Your task to perform on an android device: Open Google Maps Image 0: 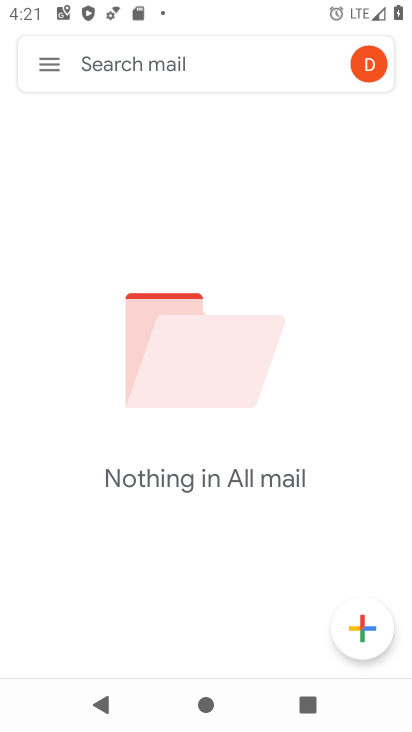
Step 0: drag from (242, 594) to (292, 160)
Your task to perform on an android device: Open Google Maps Image 1: 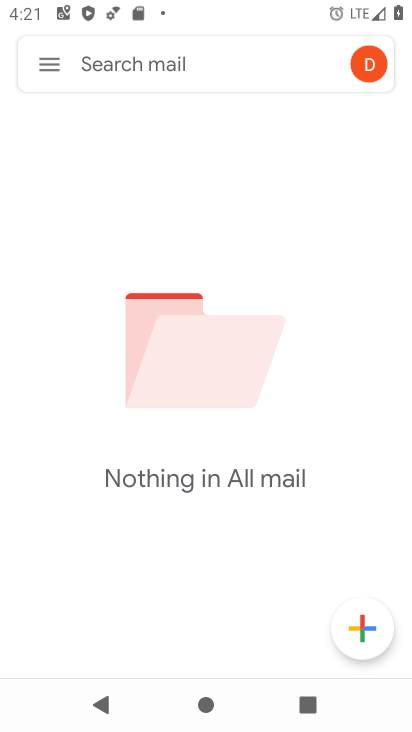
Step 1: press back button
Your task to perform on an android device: Open Google Maps Image 2: 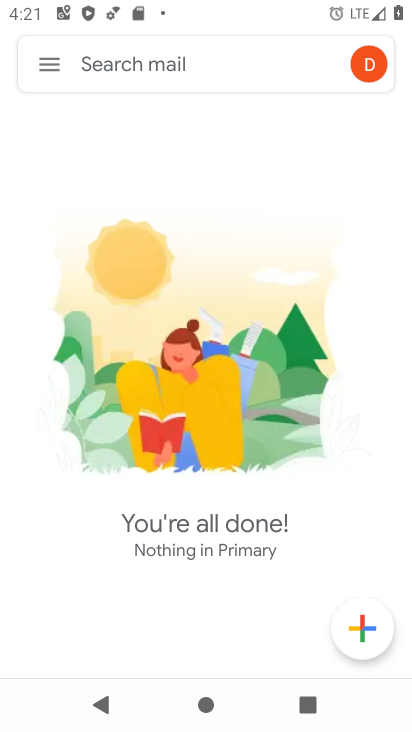
Step 2: press back button
Your task to perform on an android device: Open Google Maps Image 3: 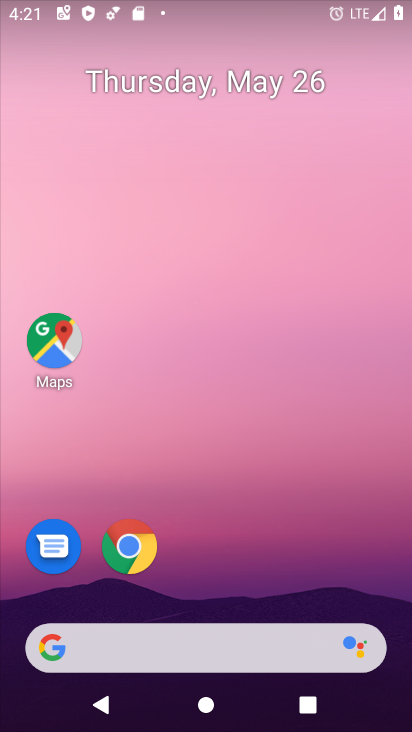
Step 3: click (67, 341)
Your task to perform on an android device: Open Google Maps Image 4: 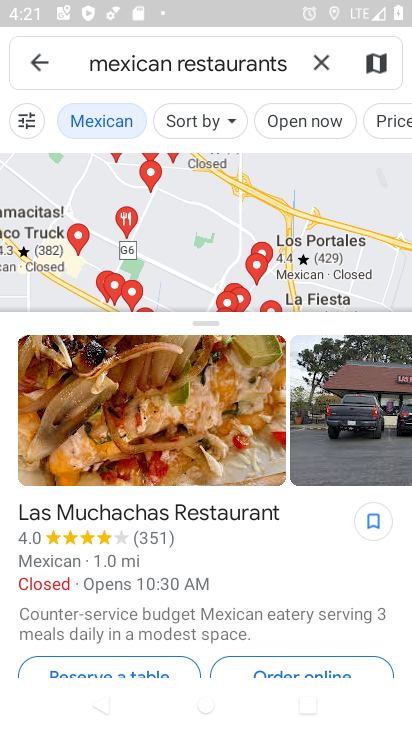
Step 4: task complete